Your task to perform on an android device: allow notifications from all sites in the chrome app Image 0: 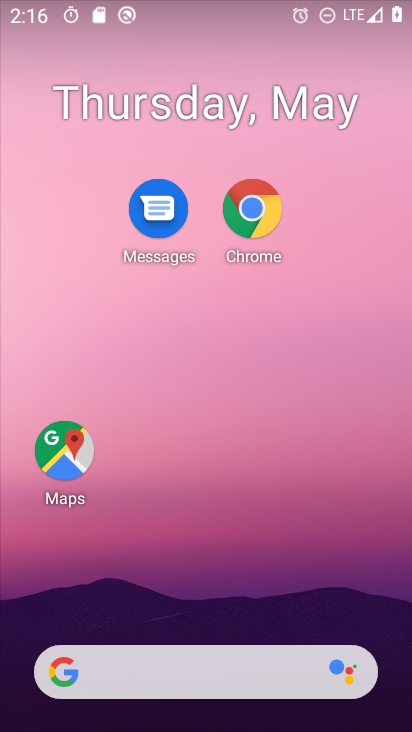
Step 0: click (246, 201)
Your task to perform on an android device: allow notifications from all sites in the chrome app Image 1: 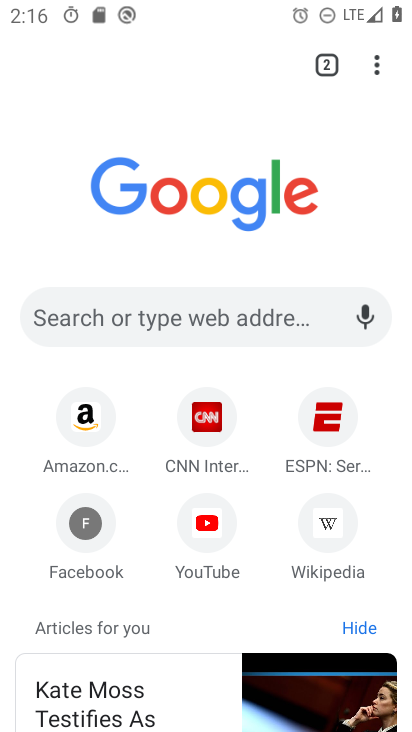
Step 1: click (372, 63)
Your task to perform on an android device: allow notifications from all sites in the chrome app Image 2: 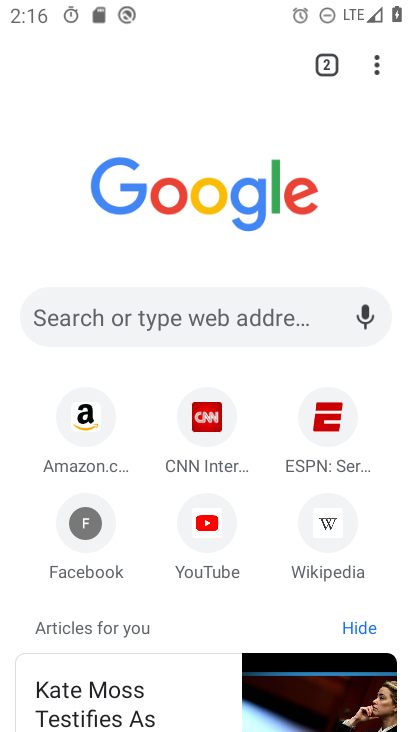
Step 2: click (374, 67)
Your task to perform on an android device: allow notifications from all sites in the chrome app Image 3: 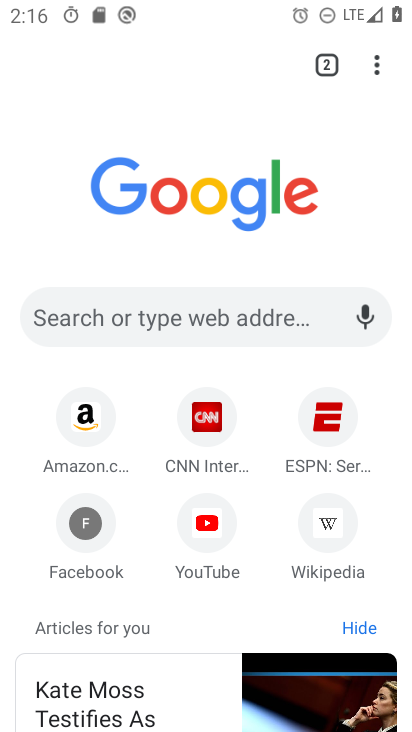
Step 3: click (376, 67)
Your task to perform on an android device: allow notifications from all sites in the chrome app Image 4: 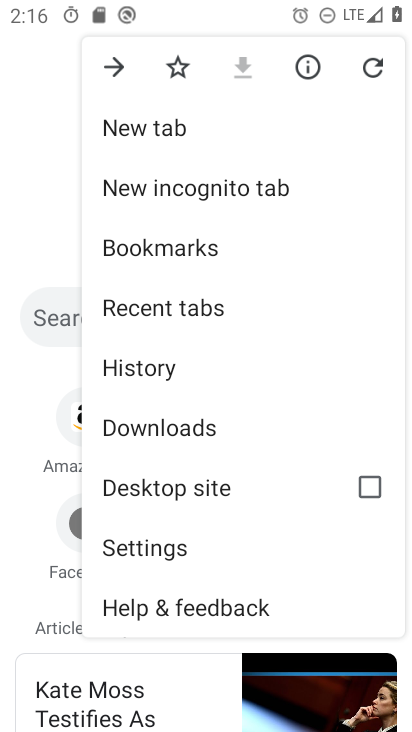
Step 4: drag from (208, 523) to (197, 236)
Your task to perform on an android device: allow notifications from all sites in the chrome app Image 5: 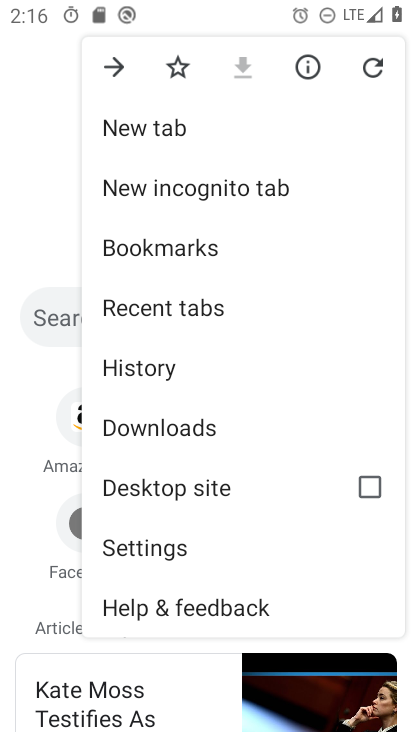
Step 5: click (143, 550)
Your task to perform on an android device: allow notifications from all sites in the chrome app Image 6: 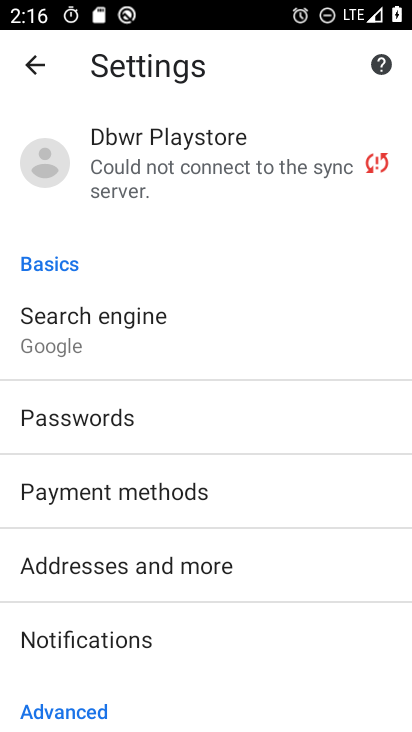
Step 6: drag from (104, 669) to (119, 365)
Your task to perform on an android device: allow notifications from all sites in the chrome app Image 7: 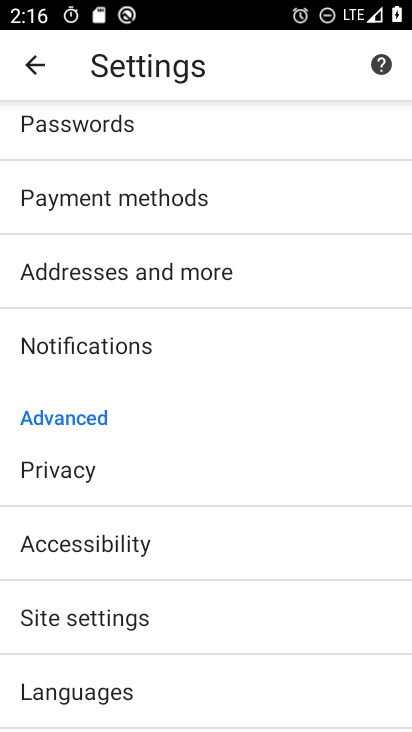
Step 7: click (91, 624)
Your task to perform on an android device: allow notifications from all sites in the chrome app Image 8: 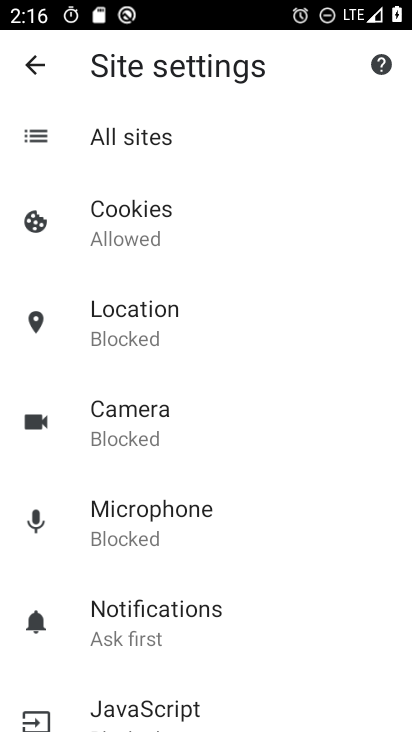
Step 8: click (91, 141)
Your task to perform on an android device: allow notifications from all sites in the chrome app Image 9: 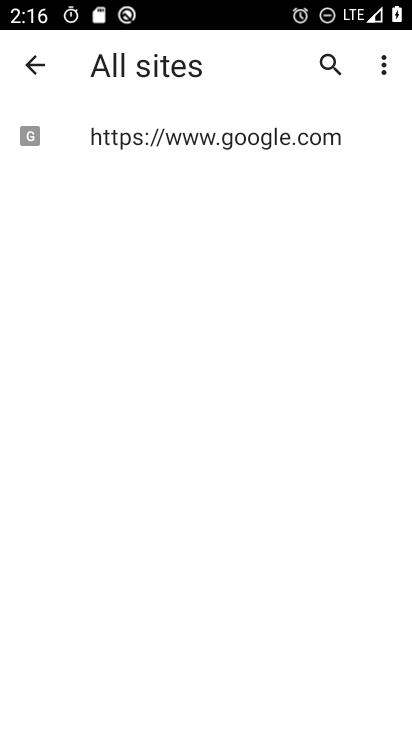
Step 9: click (136, 143)
Your task to perform on an android device: allow notifications from all sites in the chrome app Image 10: 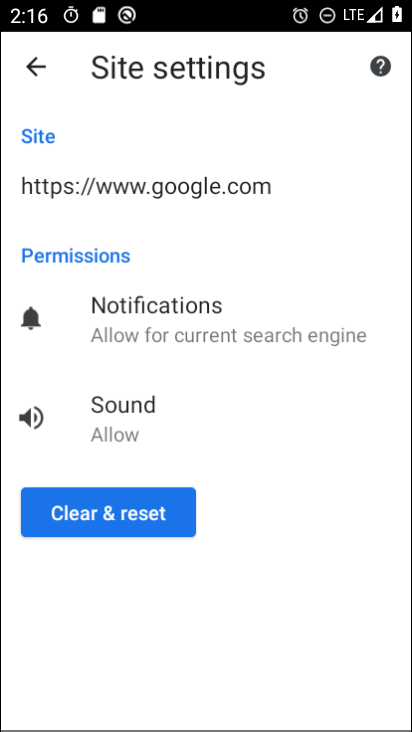
Step 10: click (197, 142)
Your task to perform on an android device: allow notifications from all sites in the chrome app Image 11: 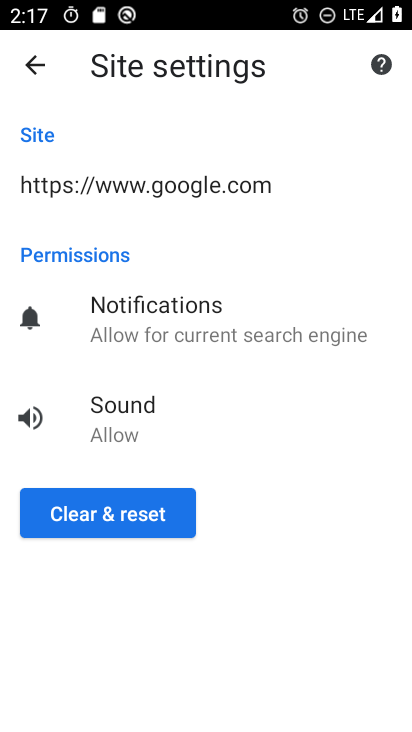
Step 11: click (150, 337)
Your task to perform on an android device: allow notifications from all sites in the chrome app Image 12: 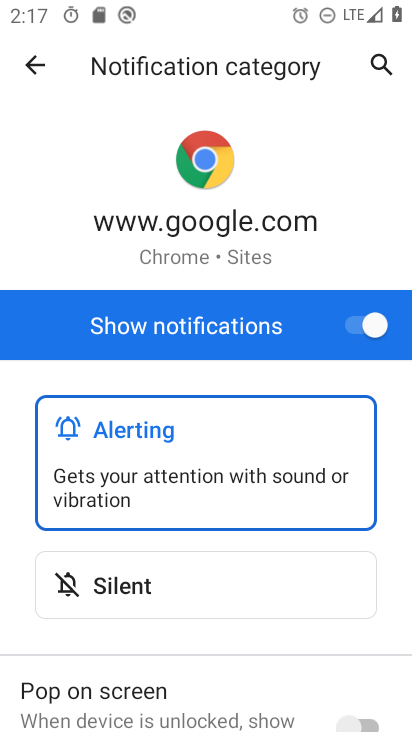
Step 12: task complete